Your task to perform on an android device: What's the weather today? Image 0: 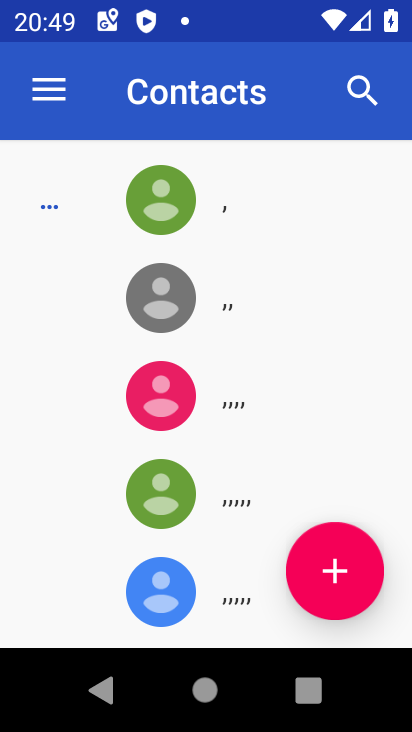
Step 0: press home button
Your task to perform on an android device: What's the weather today? Image 1: 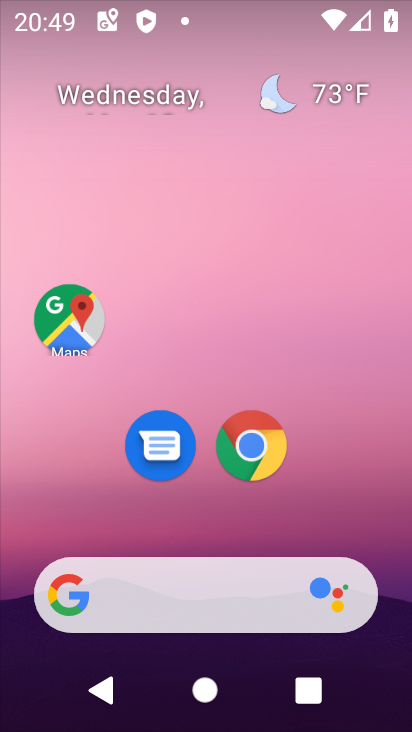
Step 1: click (237, 432)
Your task to perform on an android device: What's the weather today? Image 2: 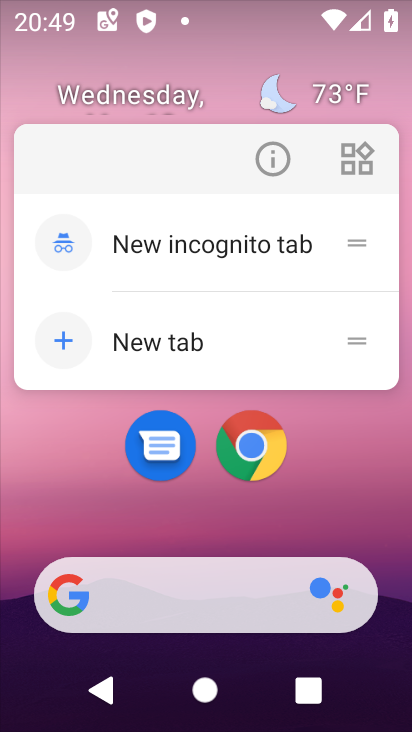
Step 2: click (333, 467)
Your task to perform on an android device: What's the weather today? Image 3: 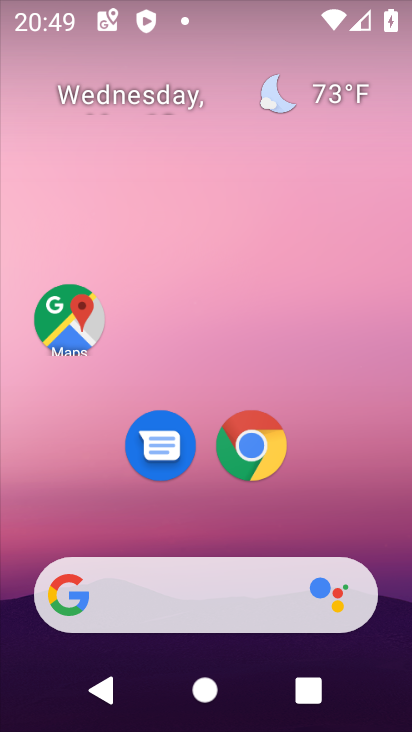
Step 3: click (260, 441)
Your task to perform on an android device: What's the weather today? Image 4: 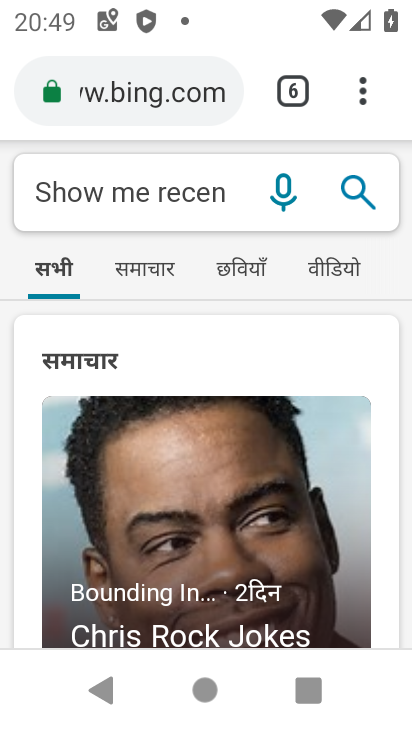
Step 4: click (367, 90)
Your task to perform on an android device: What's the weather today? Image 5: 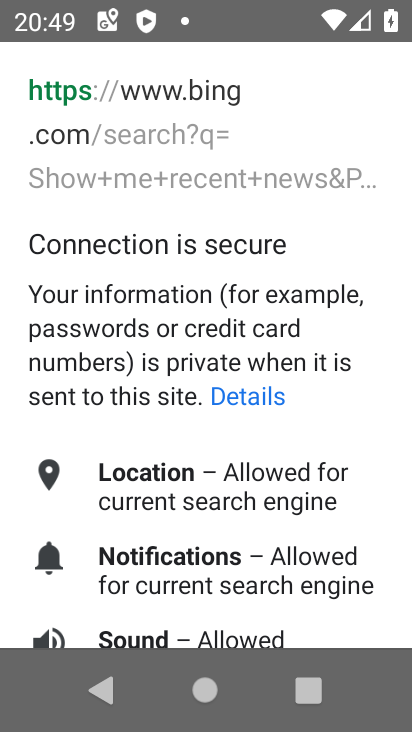
Step 5: drag from (254, 510) to (326, 140)
Your task to perform on an android device: What's the weather today? Image 6: 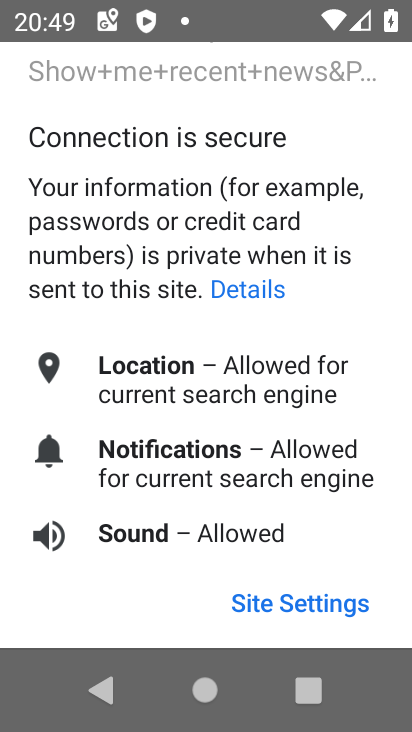
Step 6: press back button
Your task to perform on an android device: What's the weather today? Image 7: 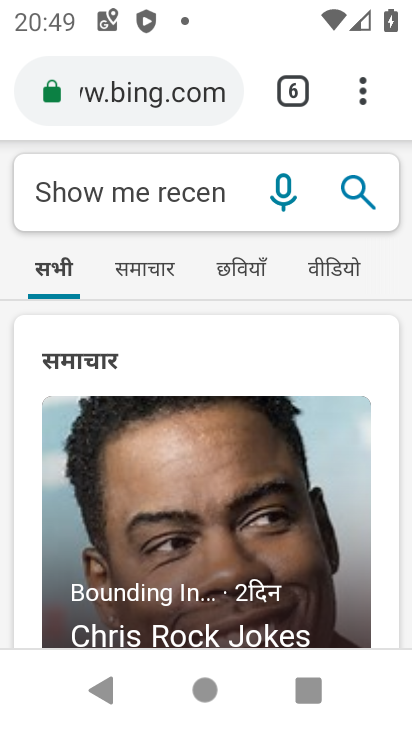
Step 7: drag from (245, 352) to (309, 110)
Your task to perform on an android device: What's the weather today? Image 8: 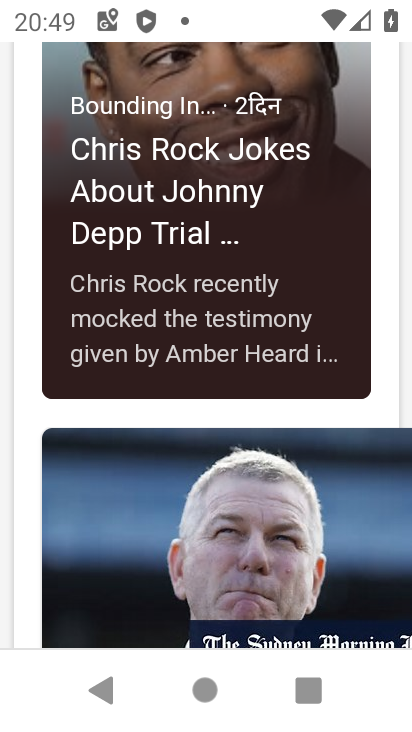
Step 8: drag from (208, 172) to (220, 676)
Your task to perform on an android device: What's the weather today? Image 9: 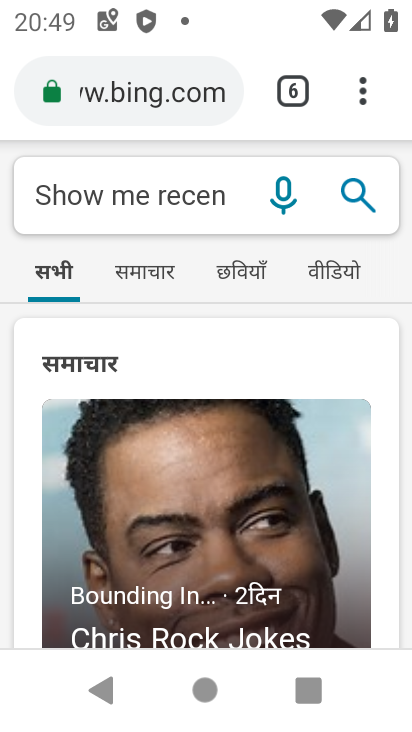
Step 9: click (362, 85)
Your task to perform on an android device: What's the weather today? Image 10: 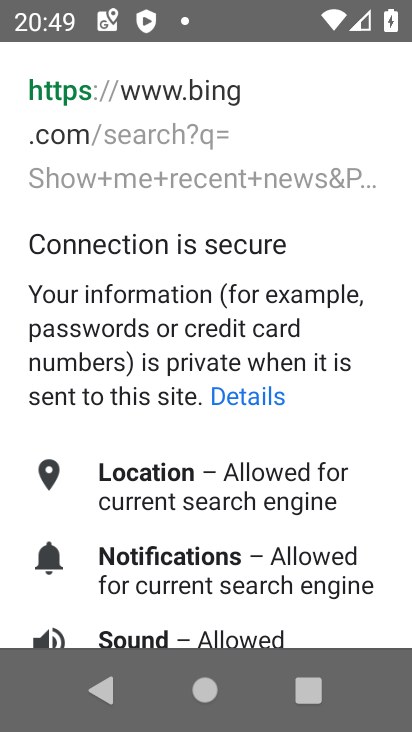
Step 10: press back button
Your task to perform on an android device: What's the weather today? Image 11: 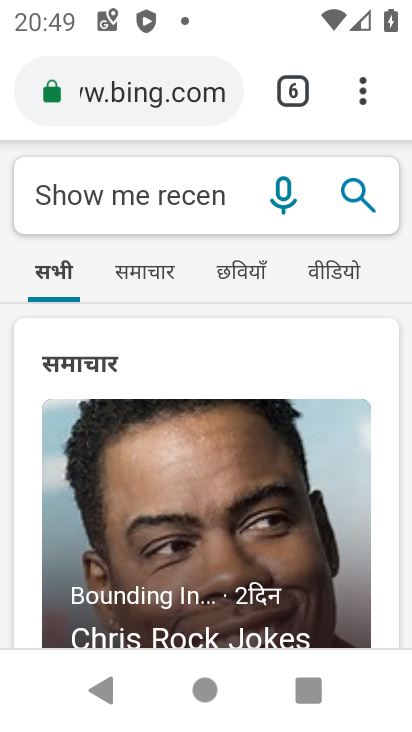
Step 11: click (373, 84)
Your task to perform on an android device: What's the weather today? Image 12: 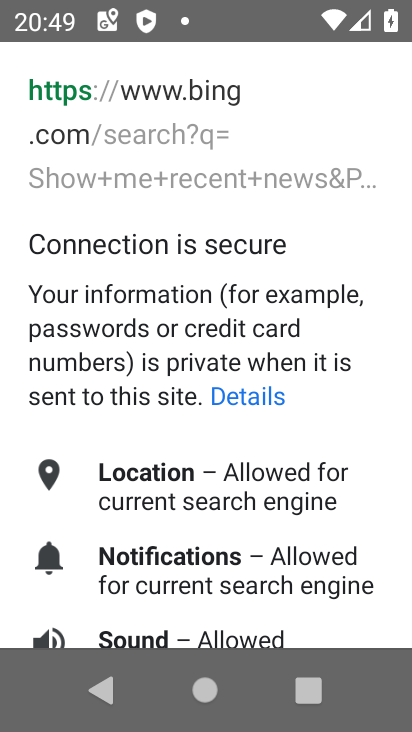
Step 12: press back button
Your task to perform on an android device: What's the weather today? Image 13: 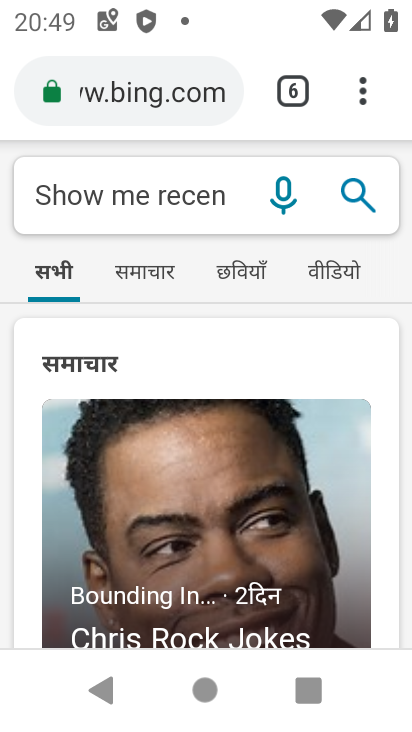
Step 13: click (363, 90)
Your task to perform on an android device: What's the weather today? Image 14: 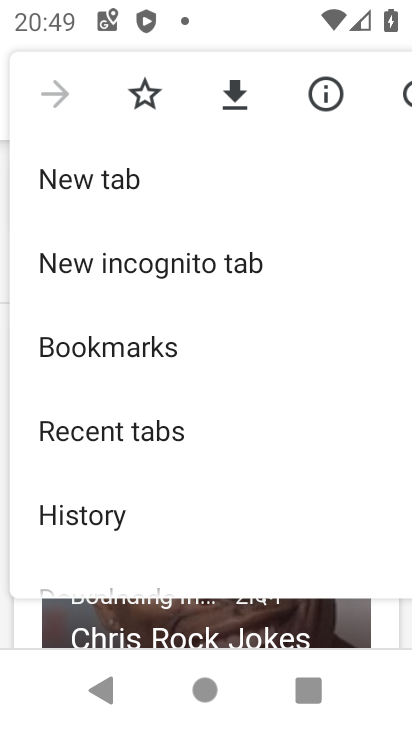
Step 14: click (160, 181)
Your task to perform on an android device: What's the weather today? Image 15: 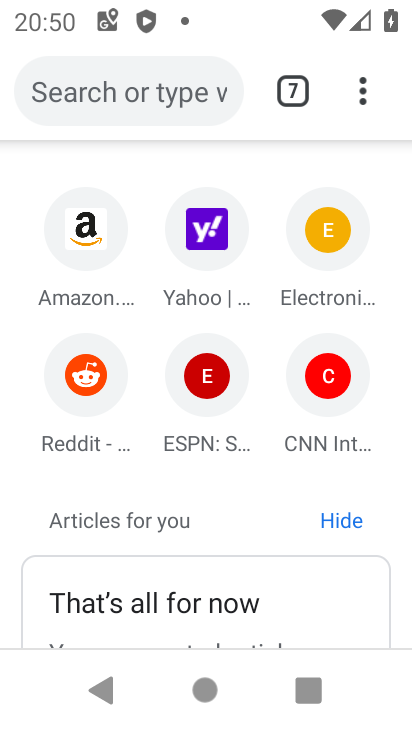
Step 15: click (159, 75)
Your task to perform on an android device: What's the weather today? Image 16: 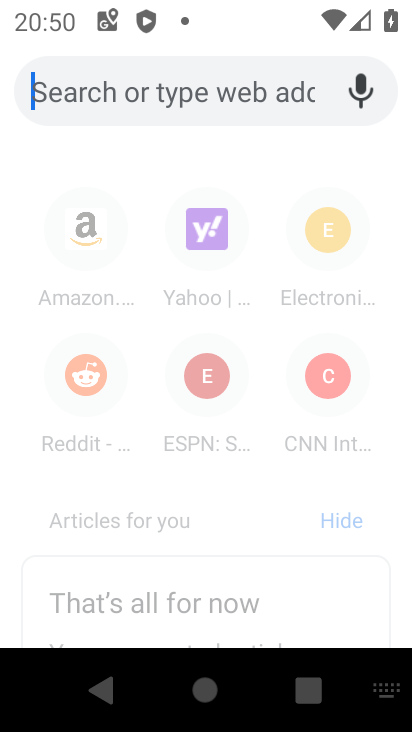
Step 16: type "What's the weather today?"
Your task to perform on an android device: What's the weather today? Image 17: 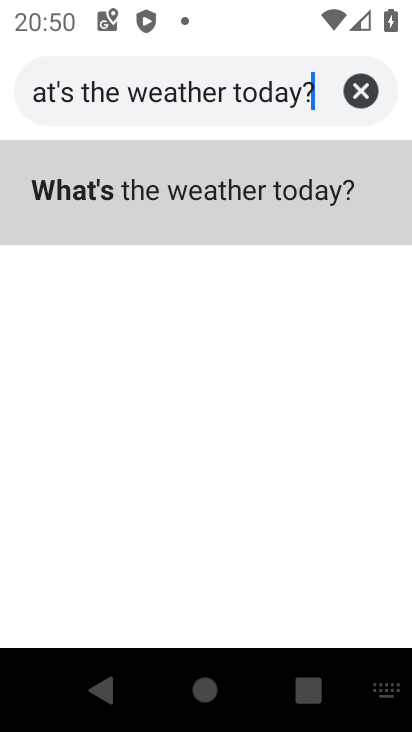
Step 17: click (241, 184)
Your task to perform on an android device: What's the weather today? Image 18: 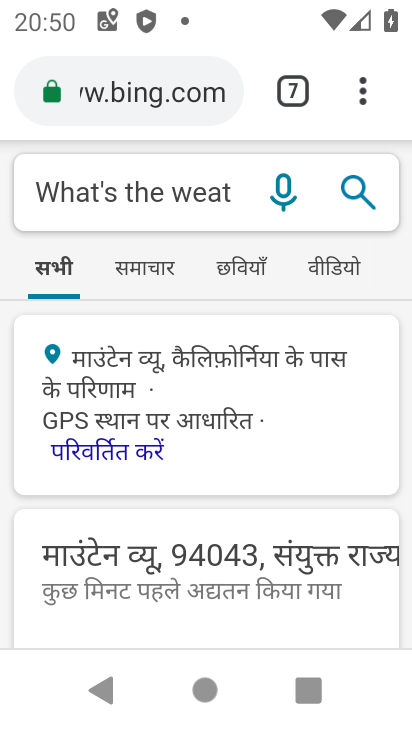
Step 18: task complete